Your task to perform on an android device: What's the weather? Image 0: 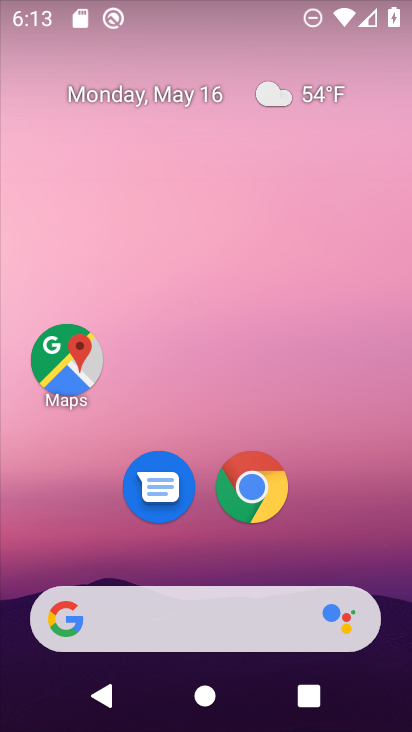
Step 0: drag from (227, 594) to (266, 208)
Your task to perform on an android device: What's the weather? Image 1: 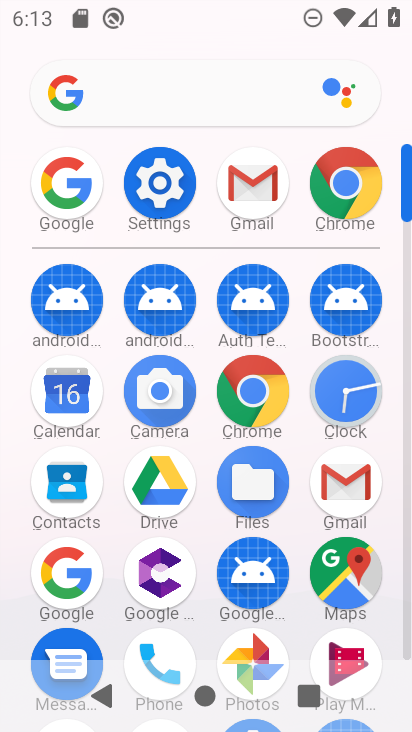
Step 1: click (56, 561)
Your task to perform on an android device: What's the weather? Image 2: 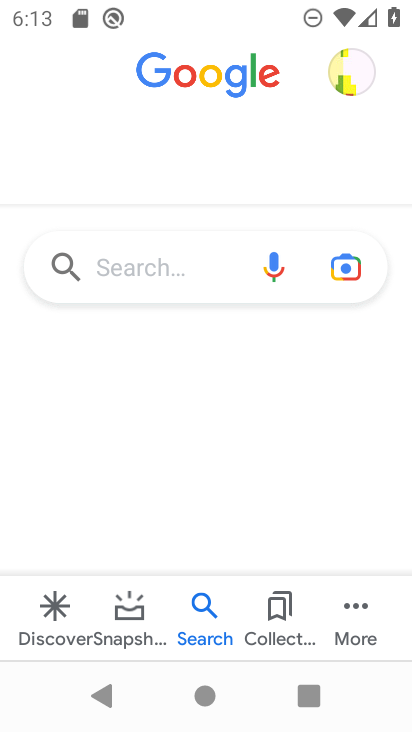
Step 2: click (190, 265)
Your task to perform on an android device: What's the weather? Image 3: 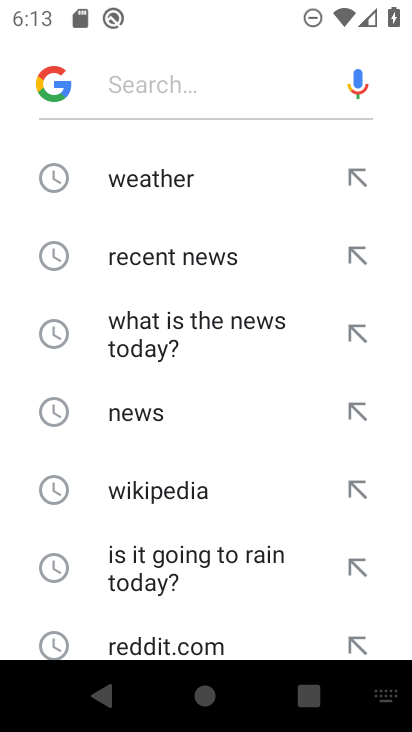
Step 3: click (148, 185)
Your task to perform on an android device: What's the weather? Image 4: 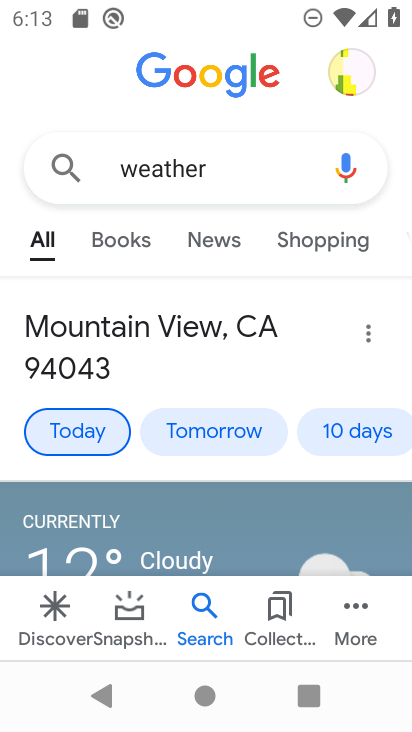
Step 4: task complete